Your task to perform on an android device: empty trash in the gmail app Image 0: 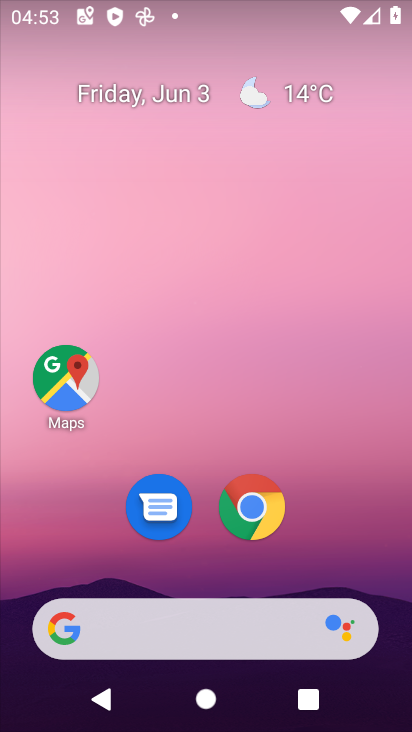
Step 0: drag from (357, 567) to (297, 127)
Your task to perform on an android device: empty trash in the gmail app Image 1: 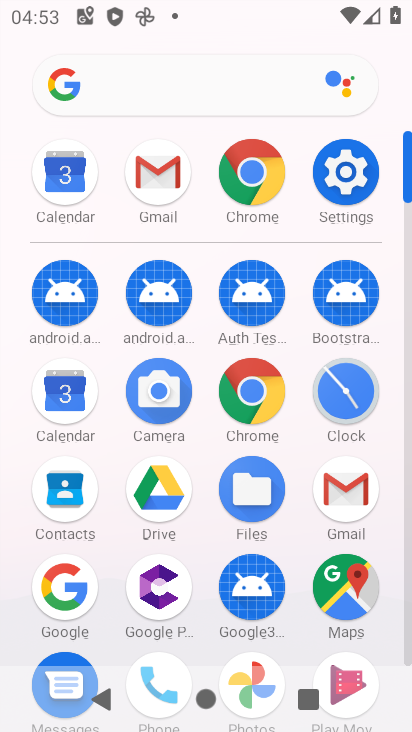
Step 1: click (175, 173)
Your task to perform on an android device: empty trash in the gmail app Image 2: 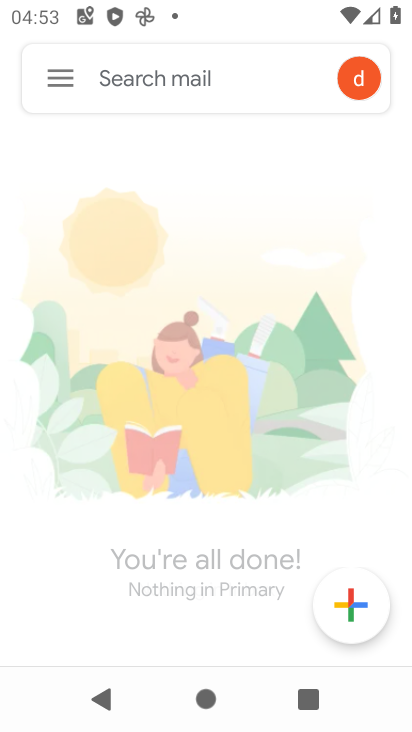
Step 2: click (65, 76)
Your task to perform on an android device: empty trash in the gmail app Image 3: 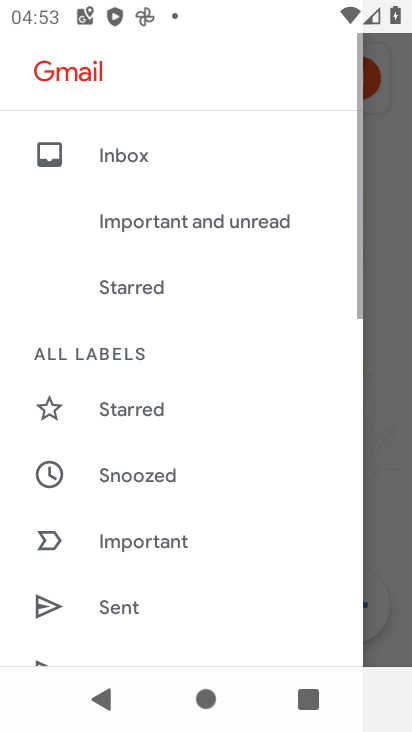
Step 3: drag from (208, 617) to (197, 154)
Your task to perform on an android device: empty trash in the gmail app Image 4: 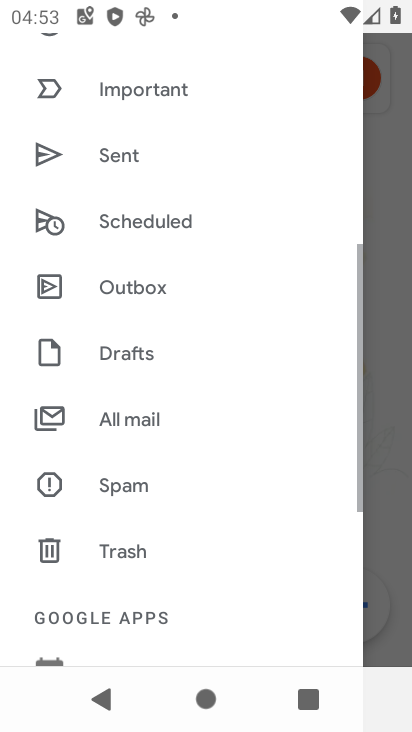
Step 4: click (142, 554)
Your task to perform on an android device: empty trash in the gmail app Image 5: 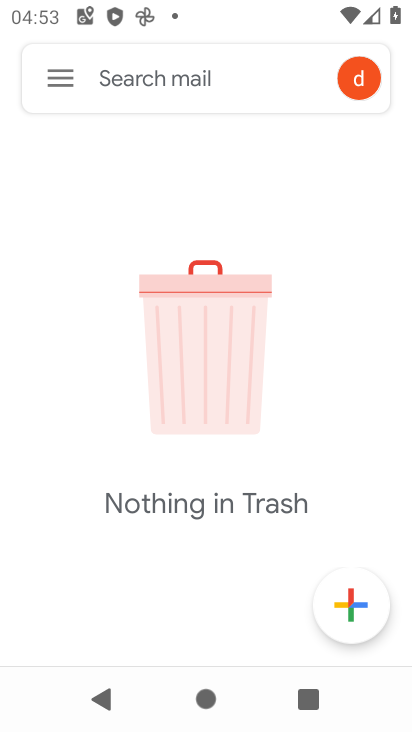
Step 5: click (179, 299)
Your task to perform on an android device: empty trash in the gmail app Image 6: 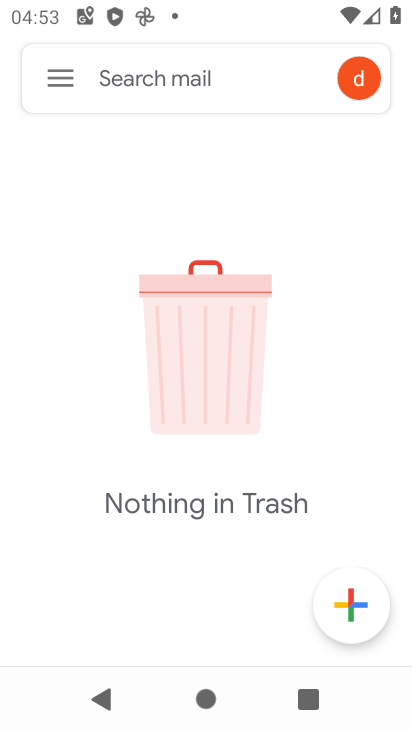
Step 6: task complete